Your task to perform on an android device: Go to calendar. Show me events next week Image 0: 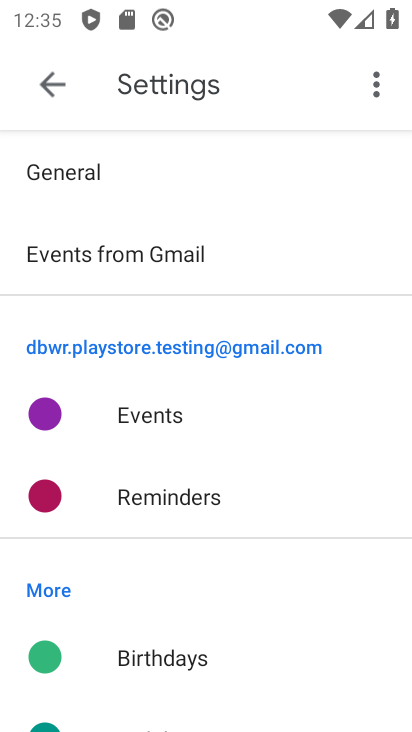
Step 0: press back button
Your task to perform on an android device: Go to calendar. Show me events next week Image 1: 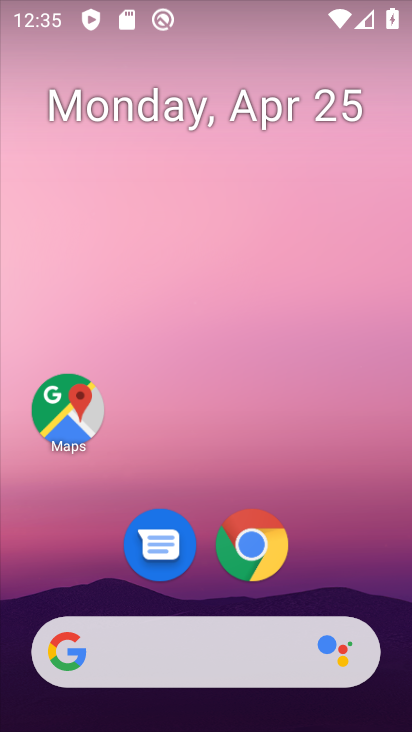
Step 1: drag from (349, 604) to (111, 99)
Your task to perform on an android device: Go to calendar. Show me events next week Image 2: 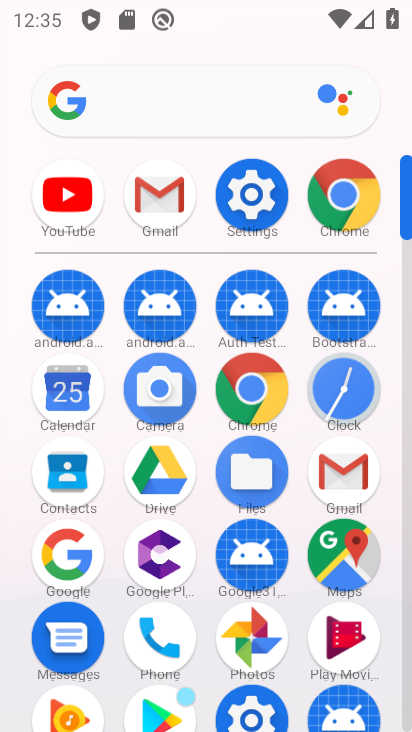
Step 2: click (76, 397)
Your task to perform on an android device: Go to calendar. Show me events next week Image 3: 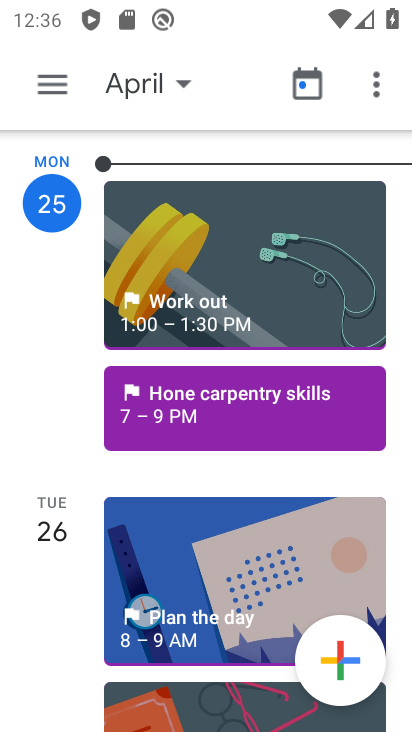
Step 3: click (178, 83)
Your task to perform on an android device: Go to calendar. Show me events next week Image 4: 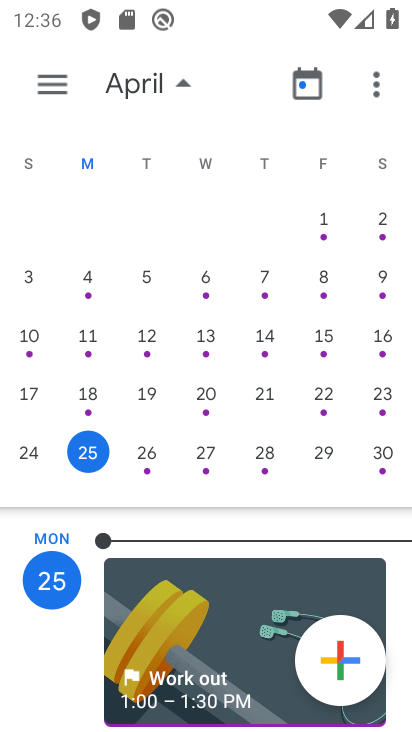
Step 4: drag from (377, 453) to (6, 391)
Your task to perform on an android device: Go to calendar. Show me events next week Image 5: 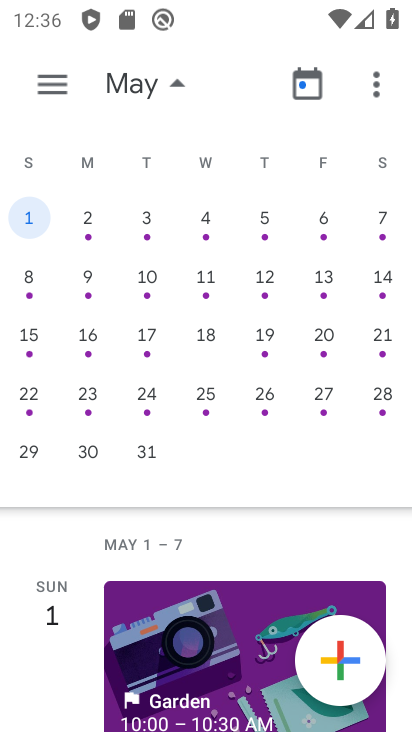
Step 5: click (381, 217)
Your task to perform on an android device: Go to calendar. Show me events next week Image 6: 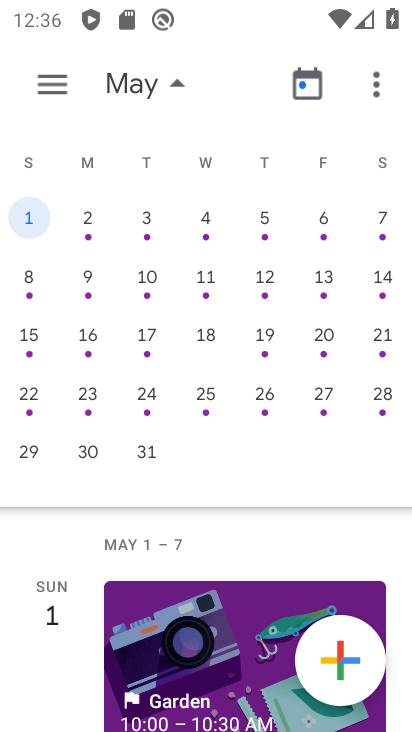
Step 6: click (381, 206)
Your task to perform on an android device: Go to calendar. Show me events next week Image 7: 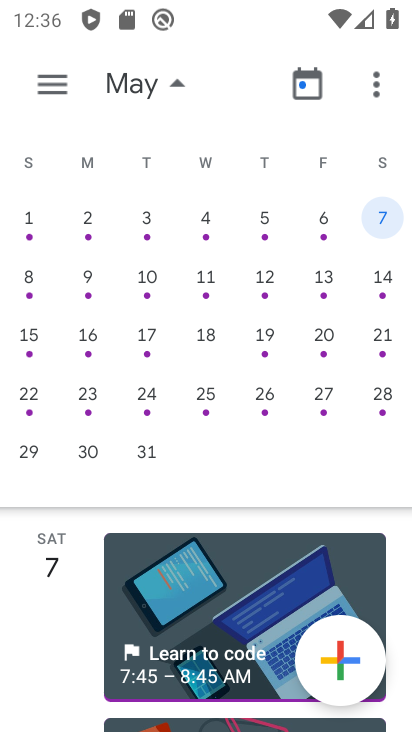
Step 7: click (143, 89)
Your task to perform on an android device: Go to calendar. Show me events next week Image 8: 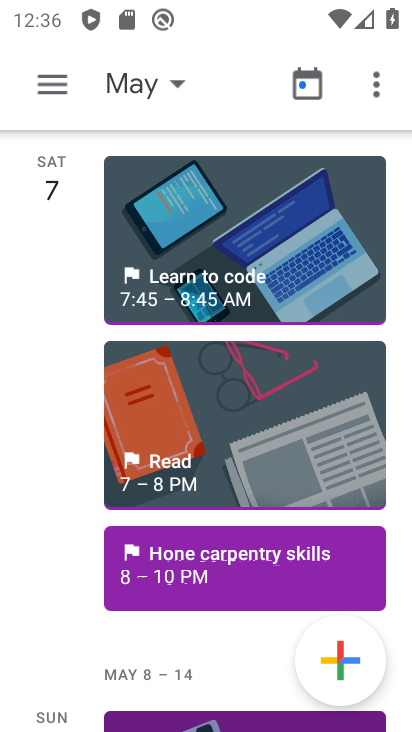
Step 8: task complete